Your task to perform on an android device: change the upload size in google photos Image 0: 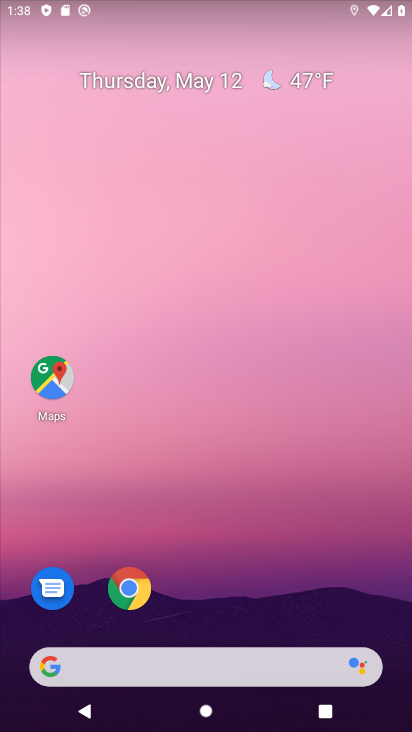
Step 0: drag from (388, 677) to (289, 130)
Your task to perform on an android device: change the upload size in google photos Image 1: 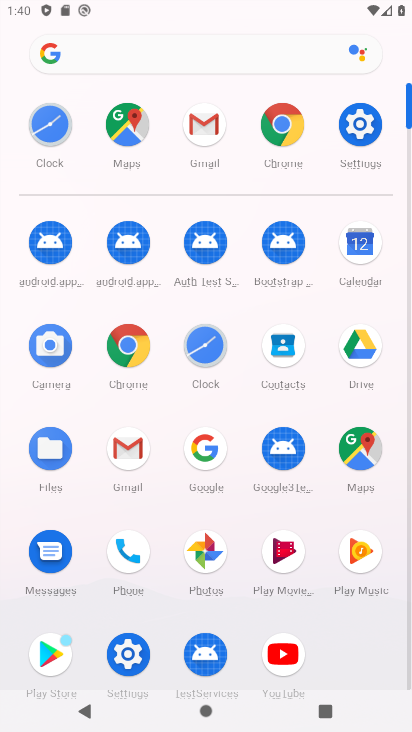
Step 1: click (214, 553)
Your task to perform on an android device: change the upload size in google photos Image 2: 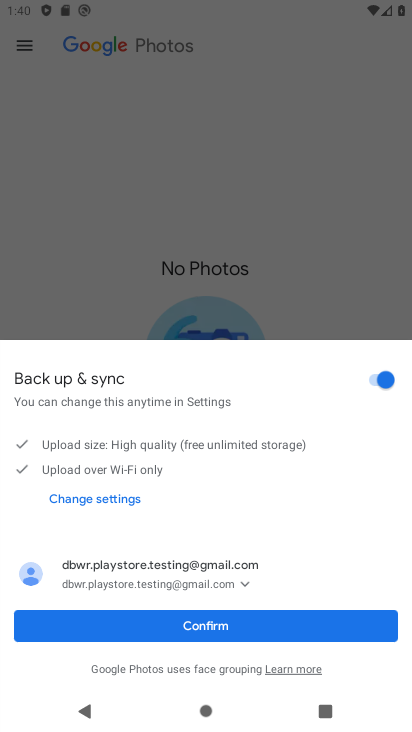
Step 2: click (201, 625)
Your task to perform on an android device: change the upload size in google photos Image 3: 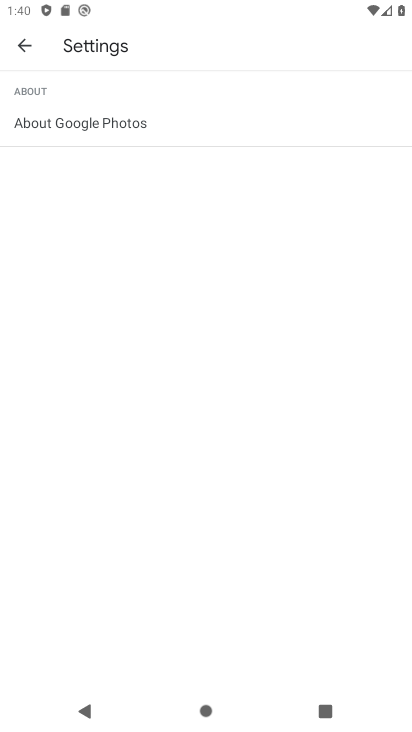
Step 3: press back button
Your task to perform on an android device: change the upload size in google photos Image 4: 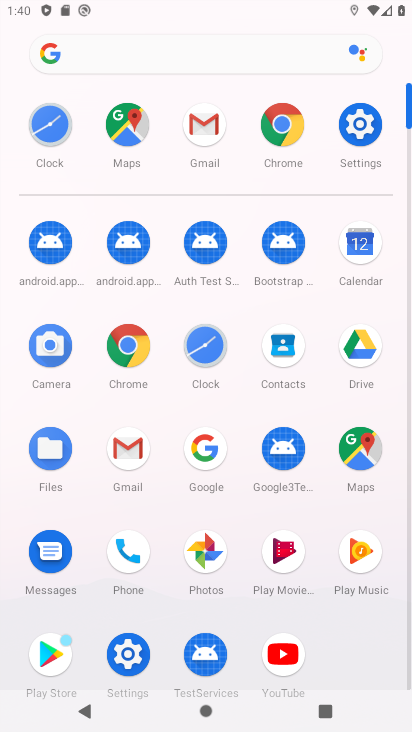
Step 4: click (220, 542)
Your task to perform on an android device: change the upload size in google photos Image 5: 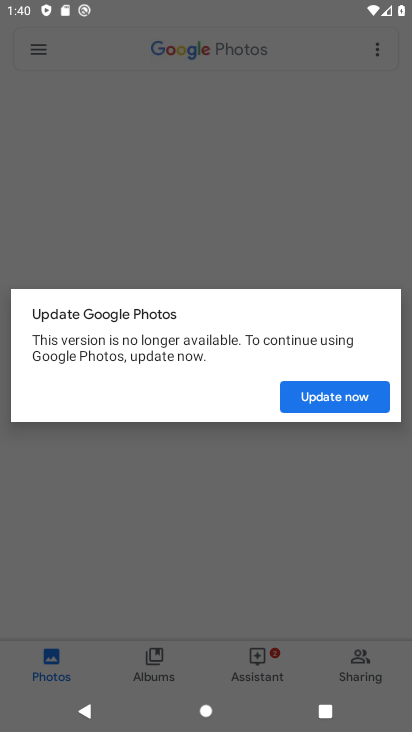
Step 5: click (342, 402)
Your task to perform on an android device: change the upload size in google photos Image 6: 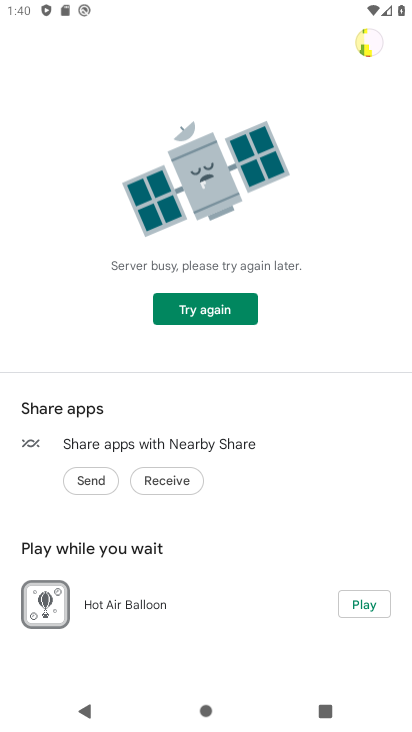
Step 6: task complete